Your task to perform on an android device: What is the news today? Image 0: 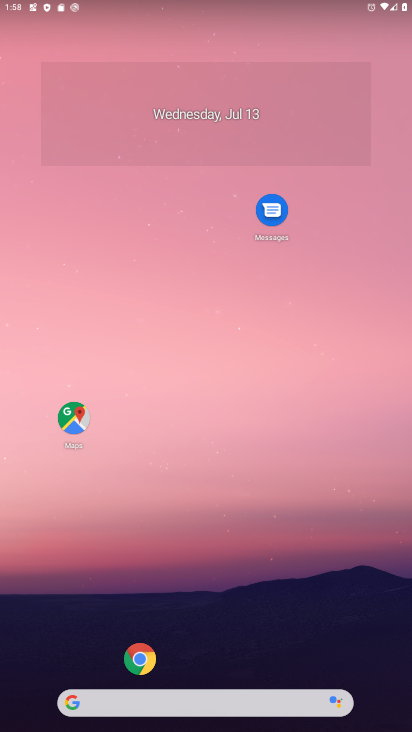
Step 0: click (118, 700)
Your task to perform on an android device: What is the news today? Image 1: 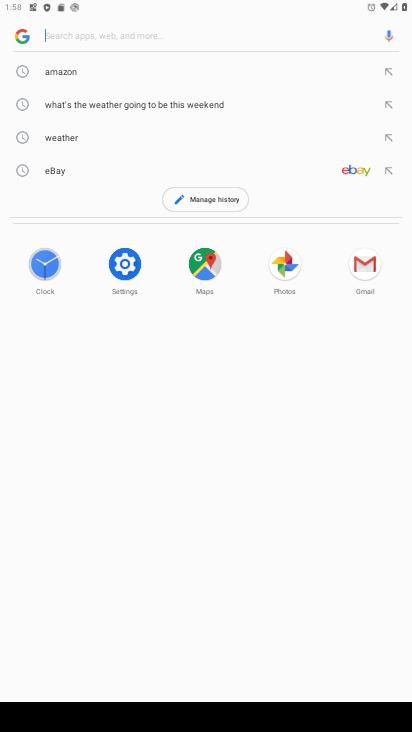
Step 1: click (345, 470)
Your task to perform on an android device: What is the news today? Image 2: 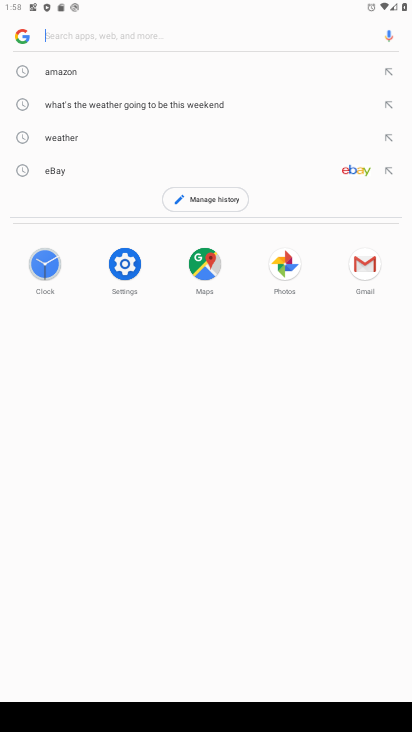
Step 2: type "What is the news today?"
Your task to perform on an android device: What is the news today? Image 3: 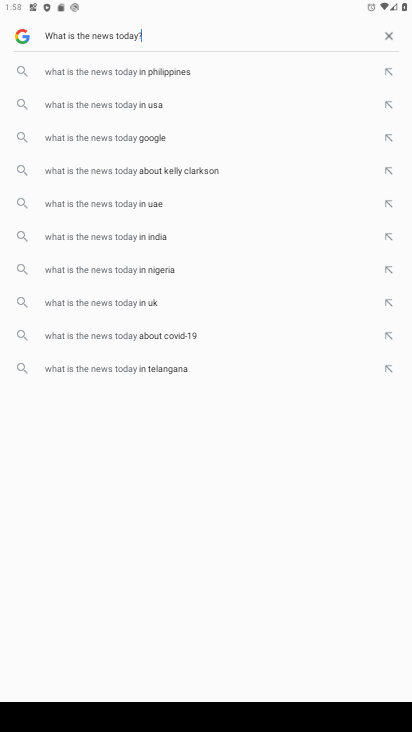
Step 3: type ""
Your task to perform on an android device: What is the news today? Image 4: 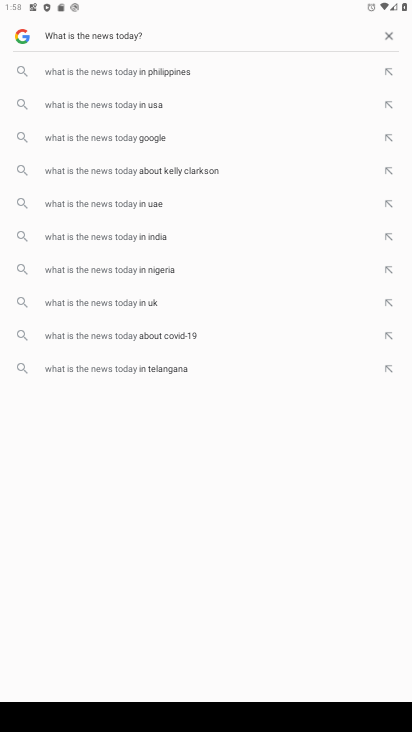
Step 4: type ""
Your task to perform on an android device: What is the news today? Image 5: 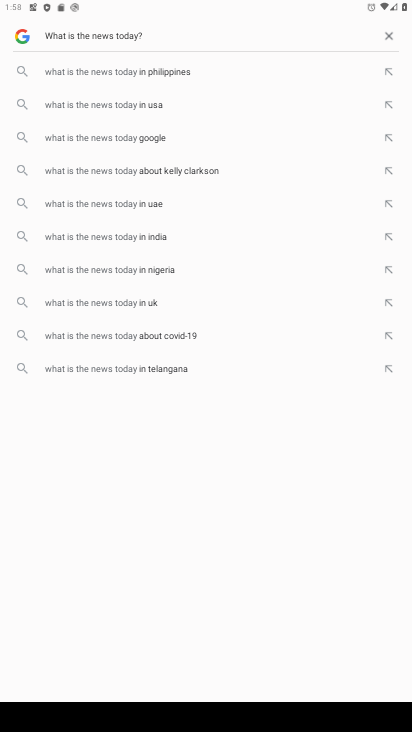
Step 5: type ""
Your task to perform on an android device: What is the news today? Image 6: 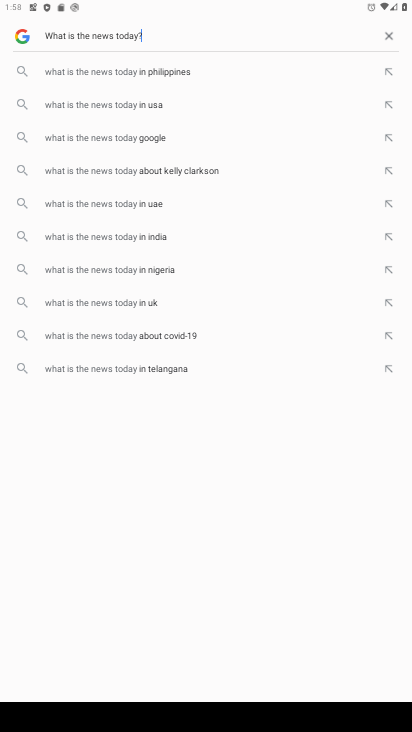
Step 6: type ""
Your task to perform on an android device: What is the news today? Image 7: 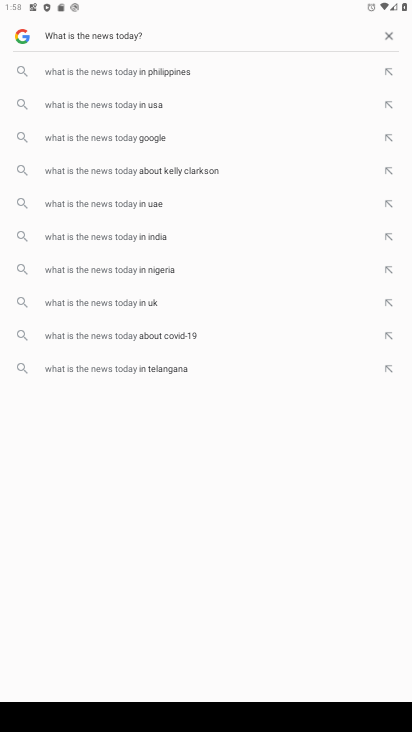
Step 7: type ""
Your task to perform on an android device: What is the news today? Image 8: 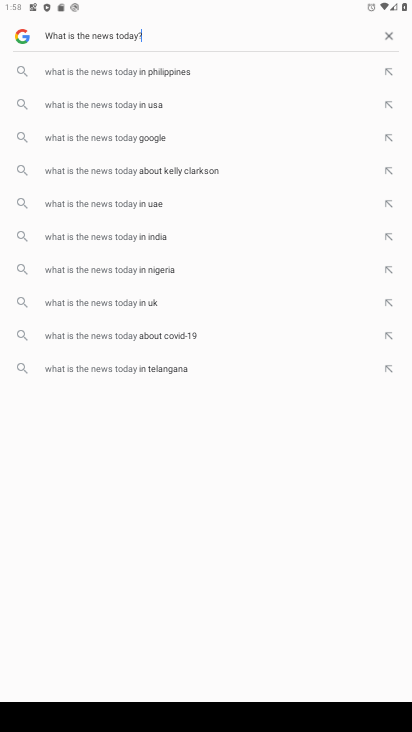
Step 8: task complete